Your task to perform on an android device: allow cookies in the chrome app Image 0: 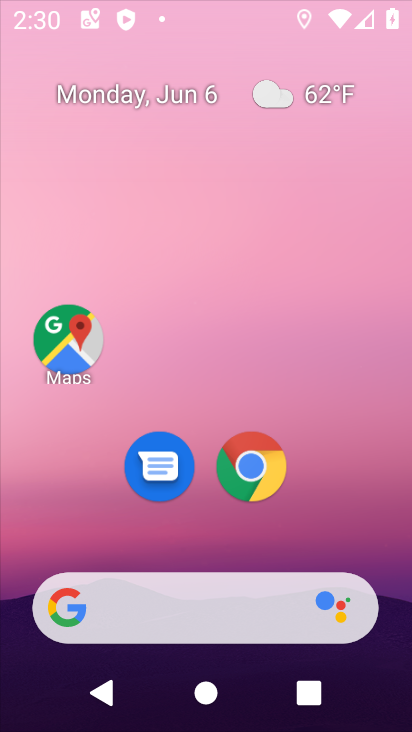
Step 0: drag from (249, 593) to (157, 214)
Your task to perform on an android device: allow cookies in the chrome app Image 1: 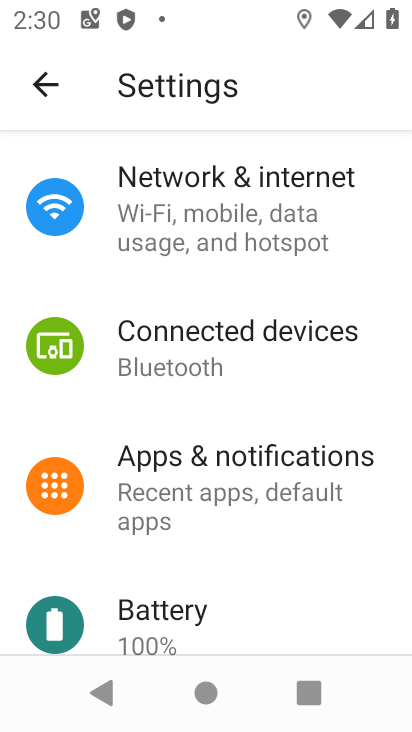
Step 1: press back button
Your task to perform on an android device: allow cookies in the chrome app Image 2: 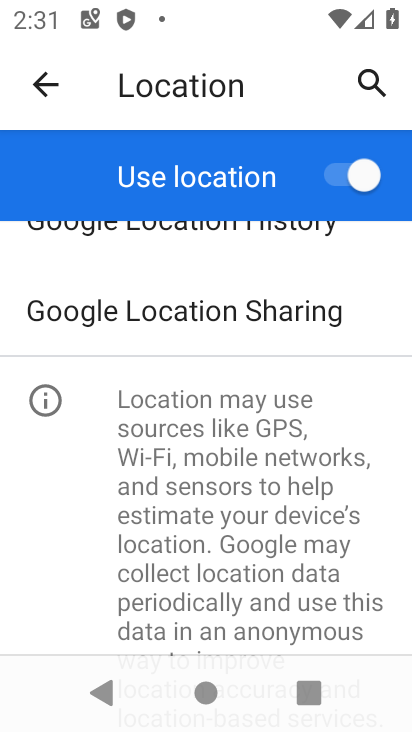
Step 2: click (43, 84)
Your task to perform on an android device: allow cookies in the chrome app Image 3: 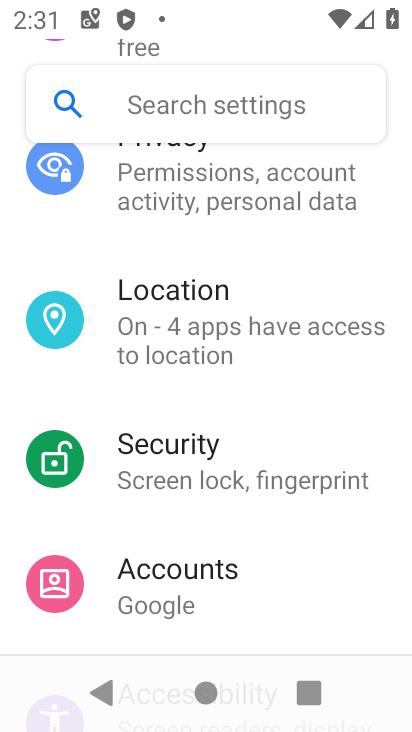
Step 3: press home button
Your task to perform on an android device: allow cookies in the chrome app Image 4: 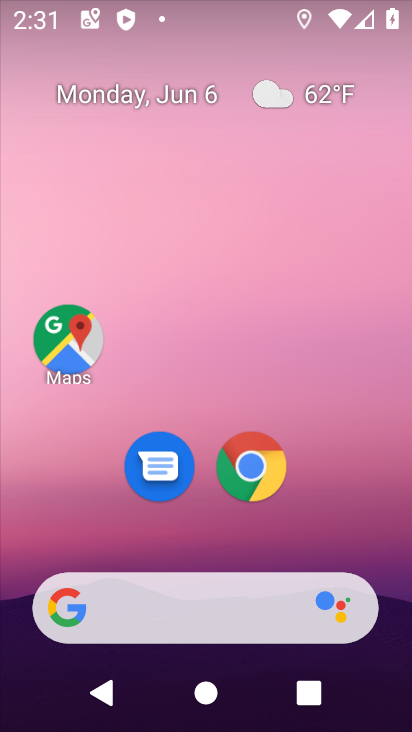
Step 4: drag from (244, 554) to (207, 196)
Your task to perform on an android device: allow cookies in the chrome app Image 5: 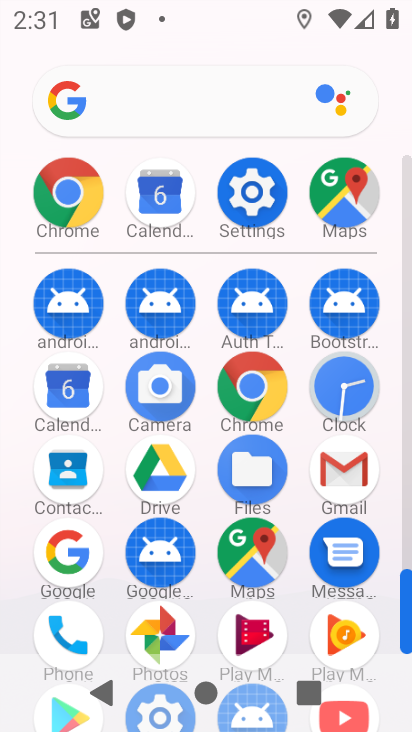
Step 5: click (257, 398)
Your task to perform on an android device: allow cookies in the chrome app Image 6: 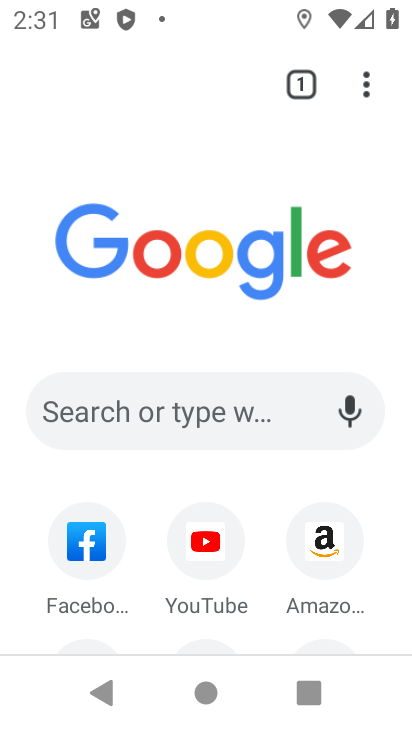
Step 6: drag from (364, 103) to (67, 523)
Your task to perform on an android device: allow cookies in the chrome app Image 7: 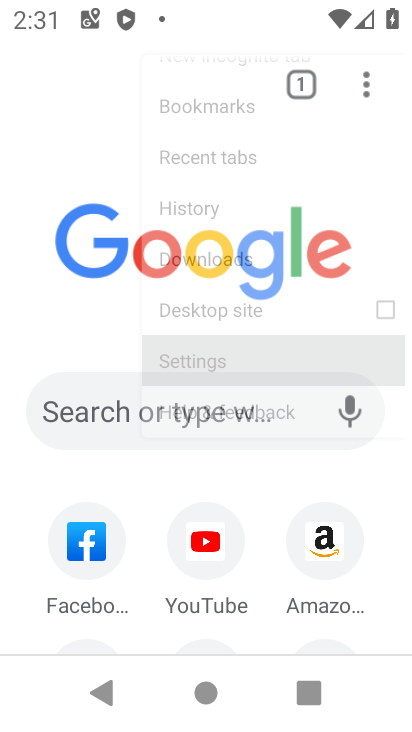
Step 7: click (70, 517)
Your task to perform on an android device: allow cookies in the chrome app Image 8: 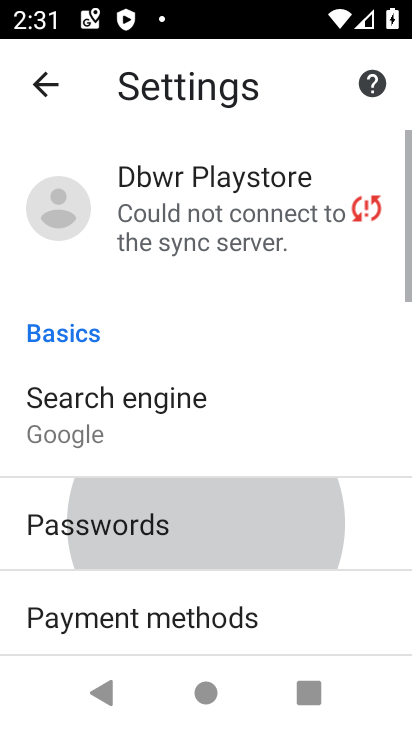
Step 8: click (71, 503)
Your task to perform on an android device: allow cookies in the chrome app Image 9: 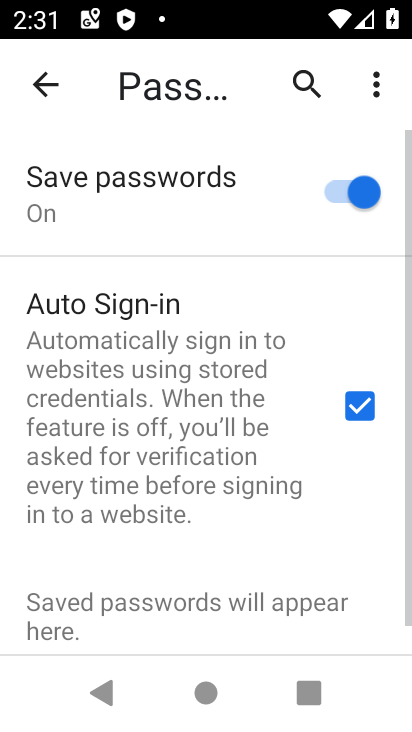
Step 9: click (46, 81)
Your task to perform on an android device: allow cookies in the chrome app Image 10: 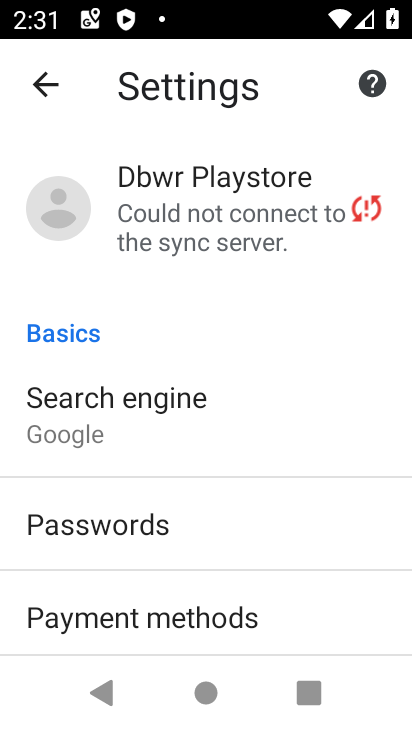
Step 10: drag from (102, 564) to (44, 78)
Your task to perform on an android device: allow cookies in the chrome app Image 11: 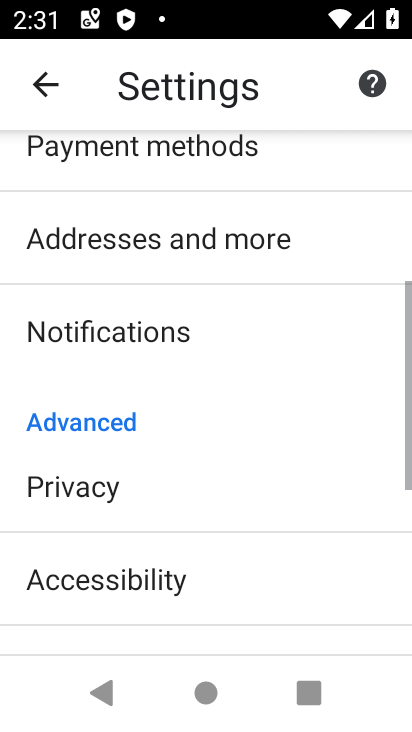
Step 11: drag from (101, 390) to (109, 122)
Your task to perform on an android device: allow cookies in the chrome app Image 12: 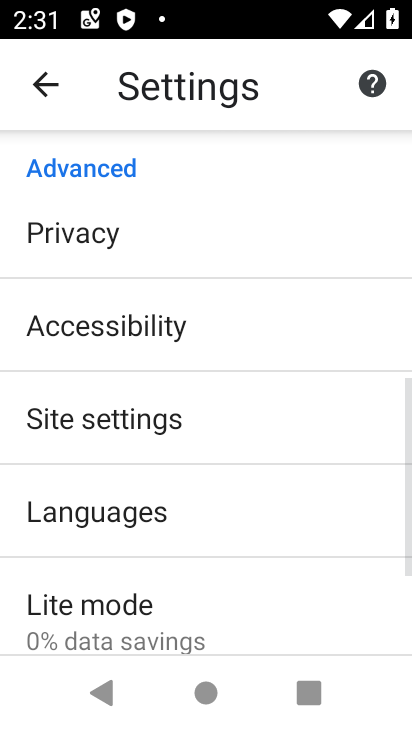
Step 12: drag from (99, 546) to (95, 137)
Your task to perform on an android device: allow cookies in the chrome app Image 13: 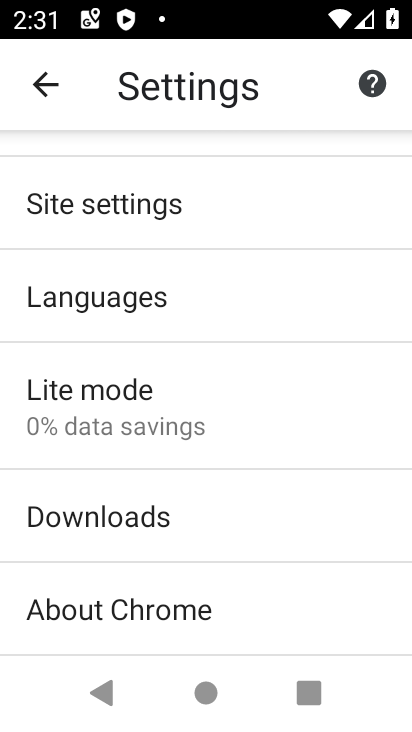
Step 13: click (83, 219)
Your task to perform on an android device: allow cookies in the chrome app Image 14: 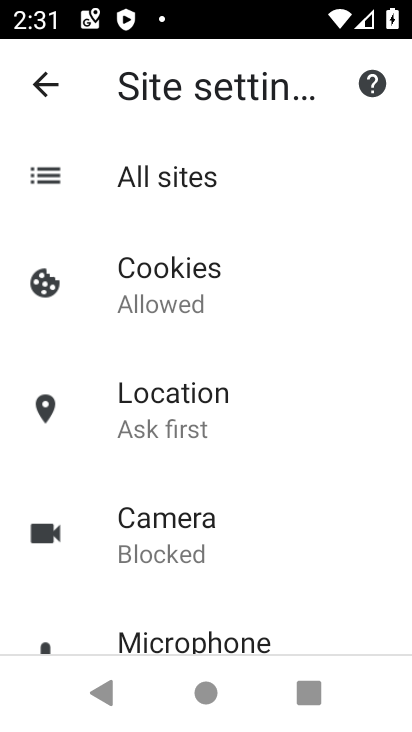
Step 14: click (146, 280)
Your task to perform on an android device: allow cookies in the chrome app Image 15: 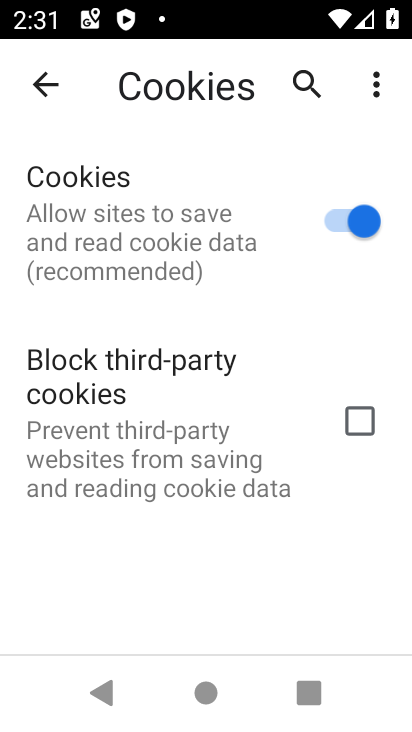
Step 15: task complete